Your task to perform on an android device: Is it going to rain tomorrow? Image 0: 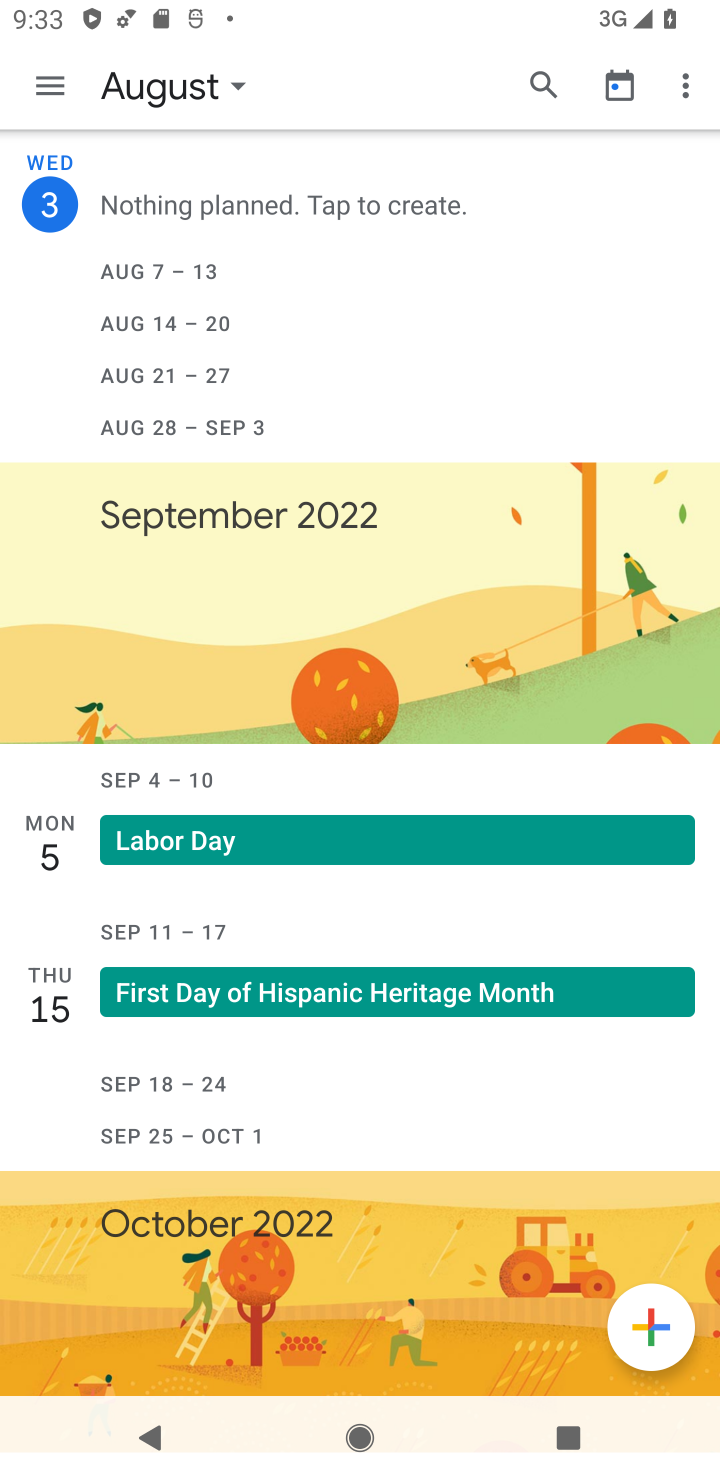
Step 0: task complete